Your task to perform on an android device: Open Google Image 0: 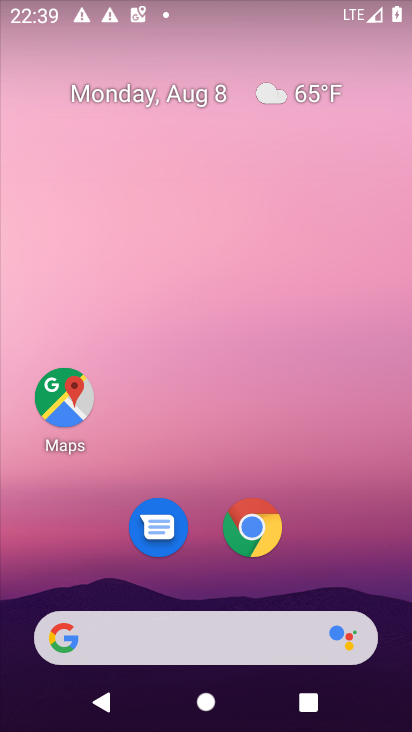
Step 0: drag from (392, 702) to (364, 276)
Your task to perform on an android device: Open Google Image 1: 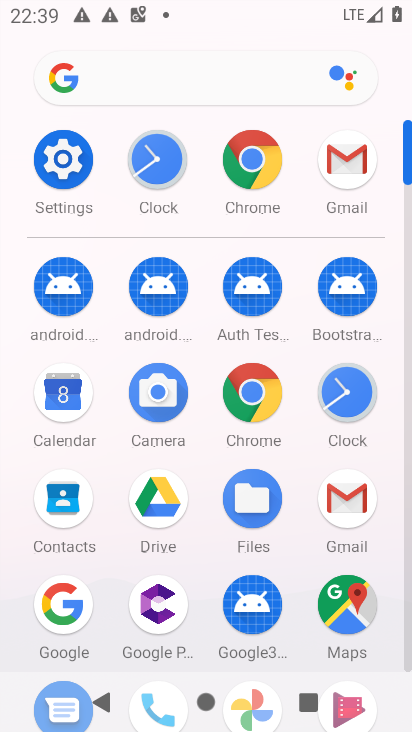
Step 1: click (59, 612)
Your task to perform on an android device: Open Google Image 2: 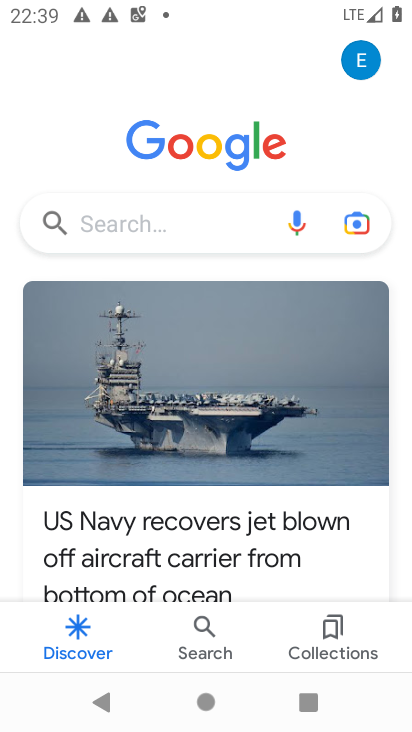
Step 2: task complete